Your task to perform on an android device: Go to privacy settings Image 0: 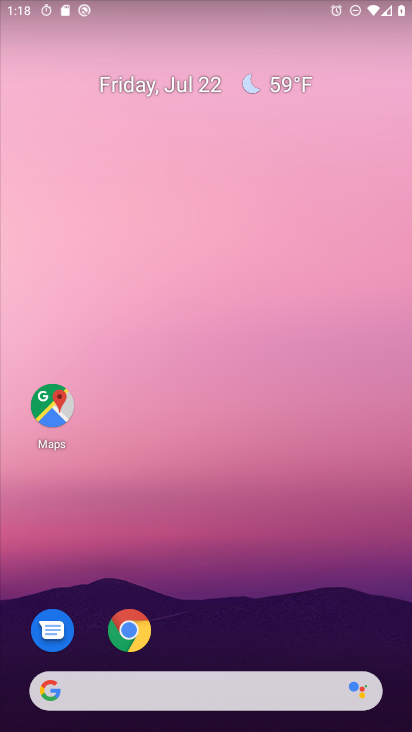
Step 0: drag from (263, 599) to (306, 90)
Your task to perform on an android device: Go to privacy settings Image 1: 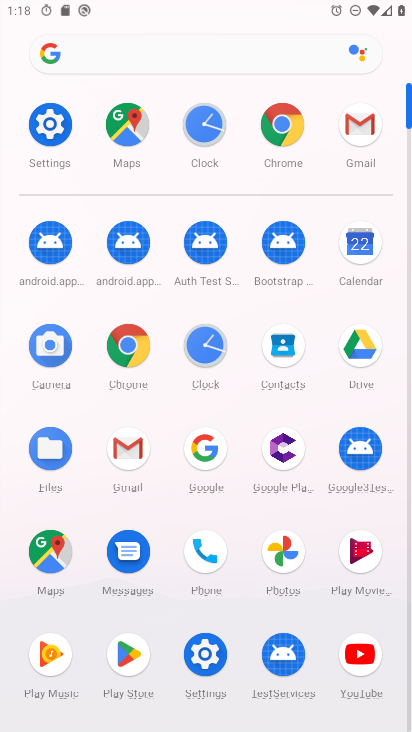
Step 1: click (48, 129)
Your task to perform on an android device: Go to privacy settings Image 2: 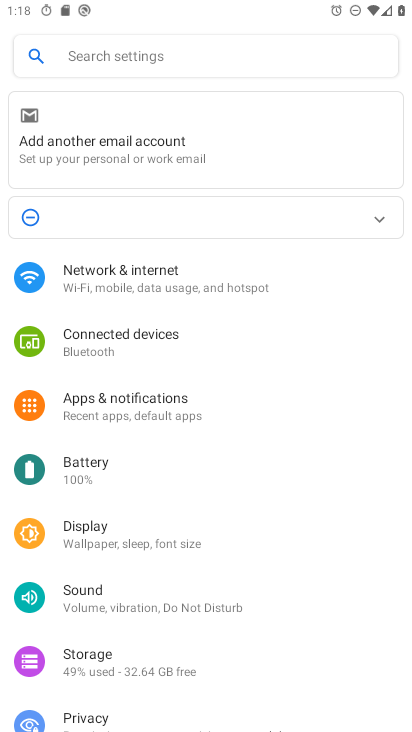
Step 2: click (82, 719)
Your task to perform on an android device: Go to privacy settings Image 3: 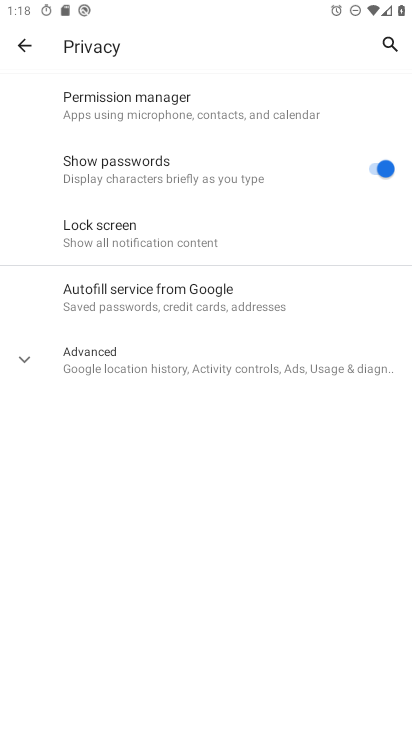
Step 3: task complete